Your task to perform on an android device: Open accessibility settings Image 0: 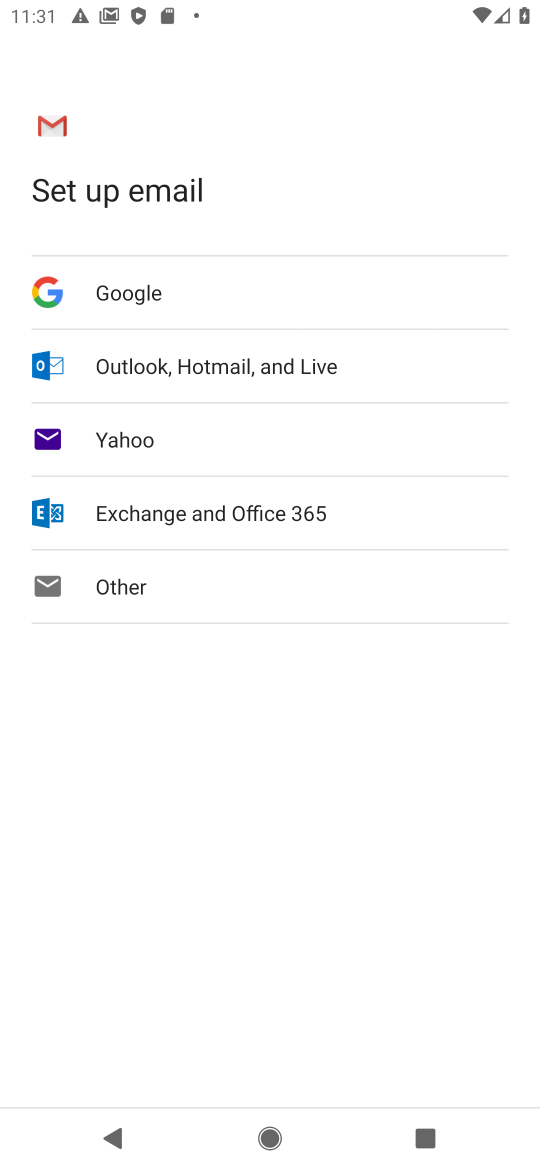
Step 0: press home button
Your task to perform on an android device: Open accessibility settings Image 1: 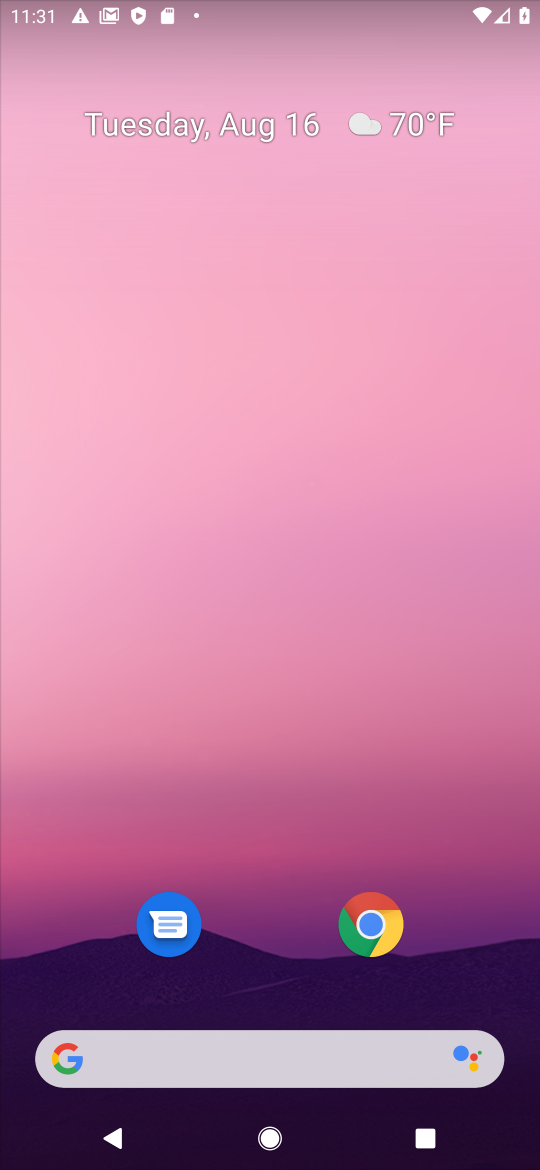
Step 1: drag from (232, 982) to (283, 96)
Your task to perform on an android device: Open accessibility settings Image 2: 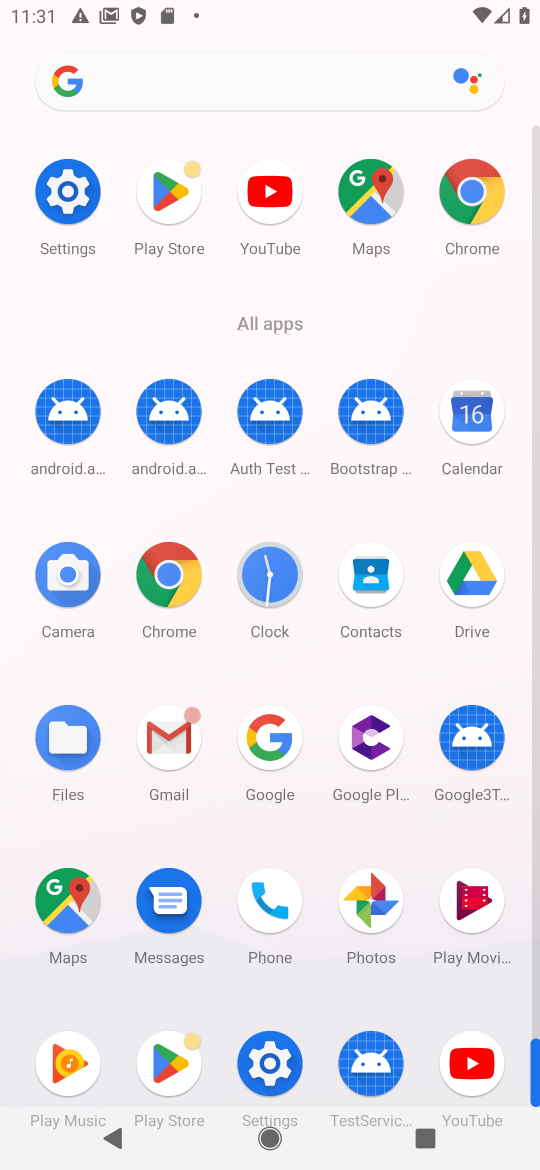
Step 2: click (65, 192)
Your task to perform on an android device: Open accessibility settings Image 3: 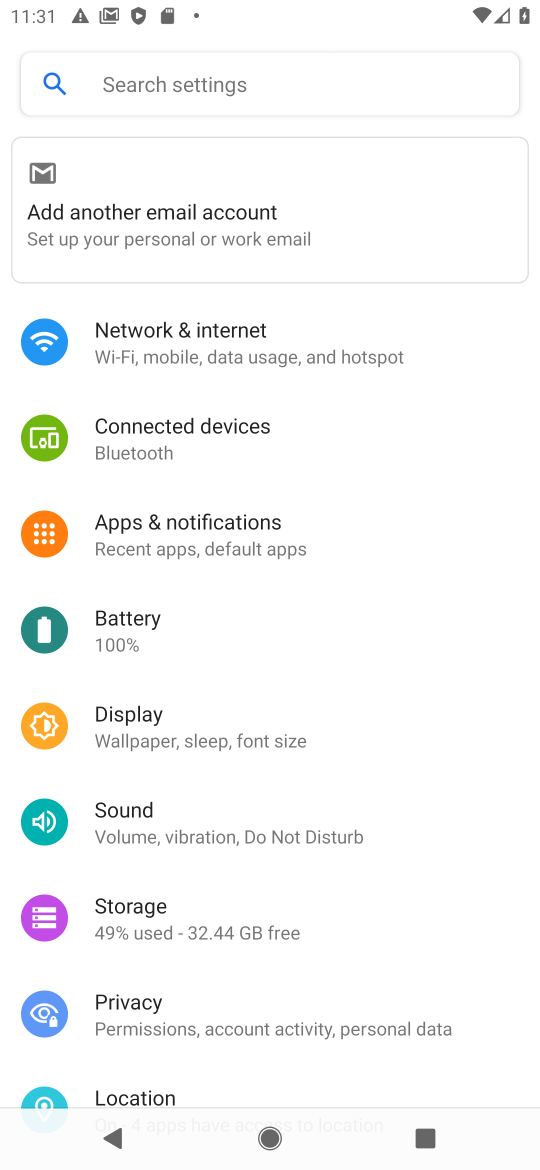
Step 3: drag from (236, 1026) to (397, 52)
Your task to perform on an android device: Open accessibility settings Image 4: 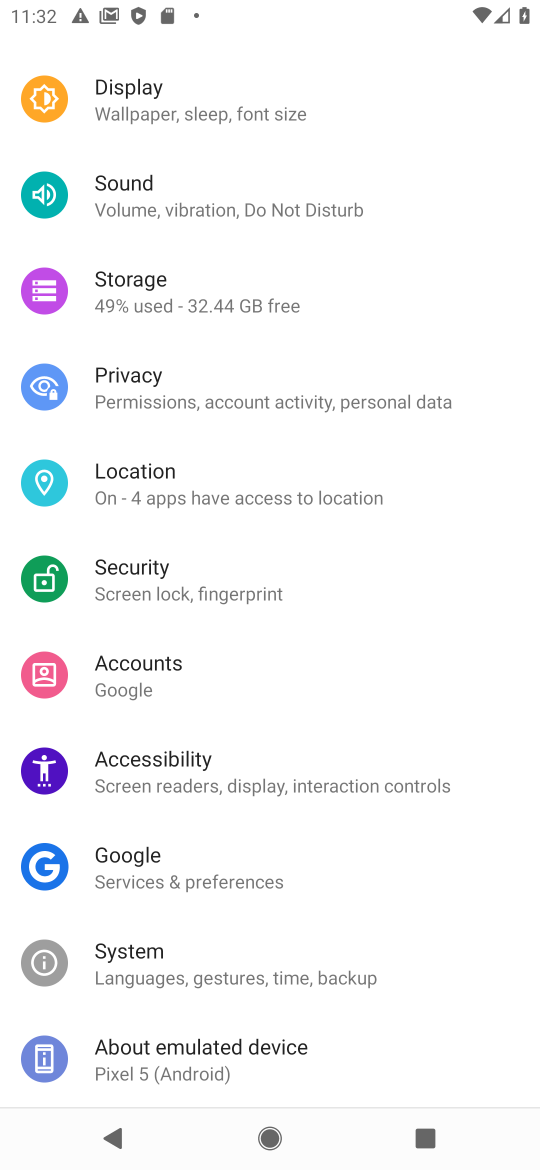
Step 4: click (303, 771)
Your task to perform on an android device: Open accessibility settings Image 5: 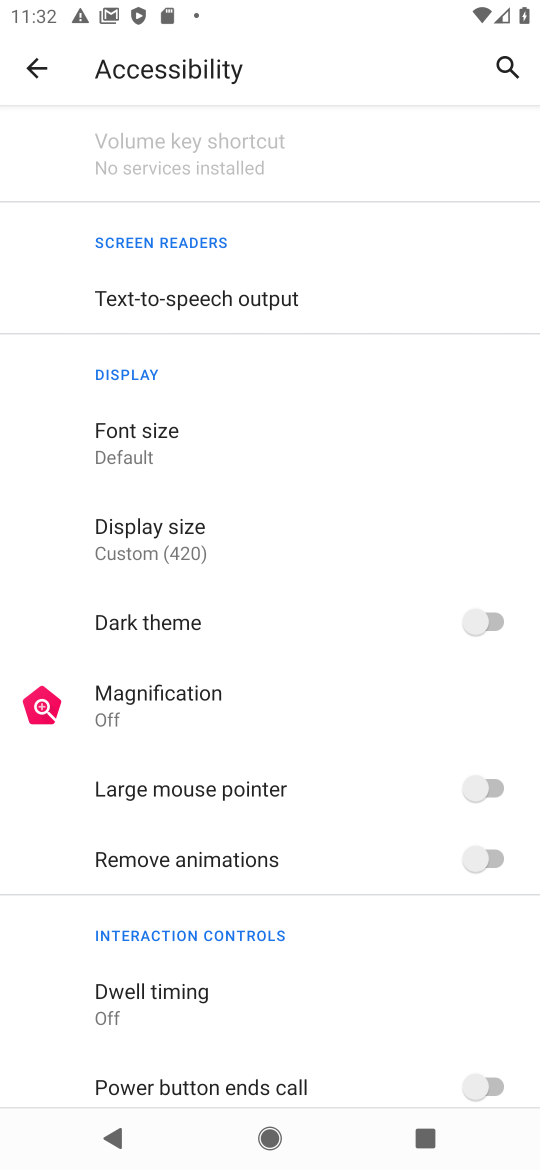
Step 5: task complete